Your task to perform on an android device: remove spam from my inbox in the gmail app Image 0: 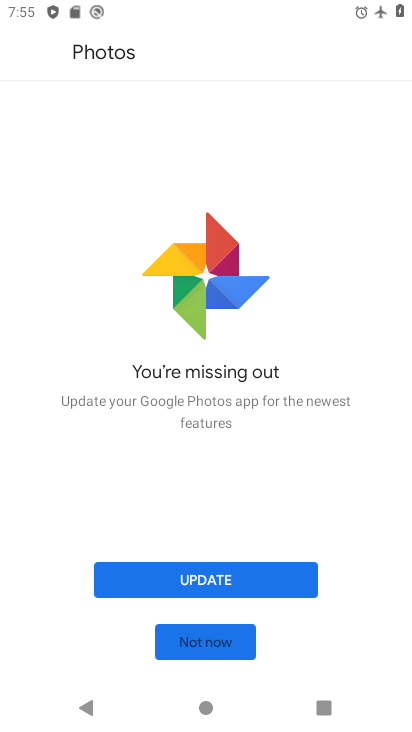
Step 0: press home button
Your task to perform on an android device: remove spam from my inbox in the gmail app Image 1: 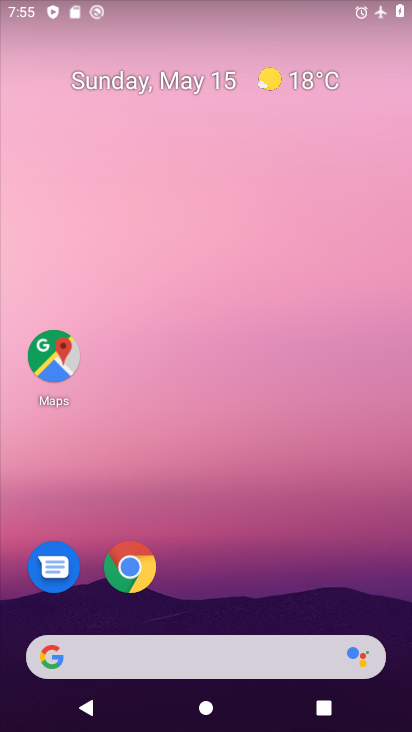
Step 1: drag from (276, 707) to (211, 30)
Your task to perform on an android device: remove spam from my inbox in the gmail app Image 2: 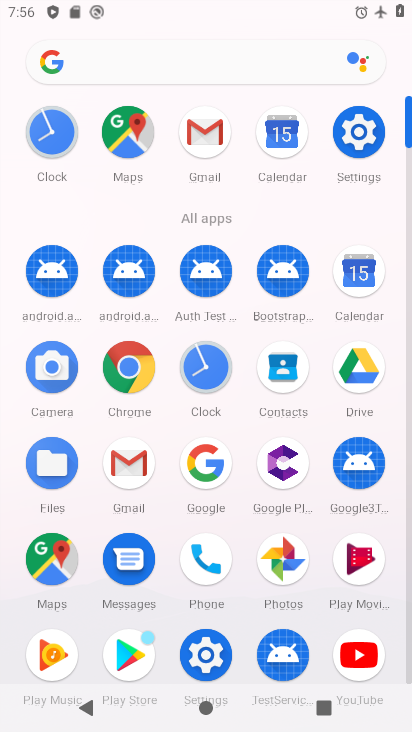
Step 2: click (213, 144)
Your task to perform on an android device: remove spam from my inbox in the gmail app Image 3: 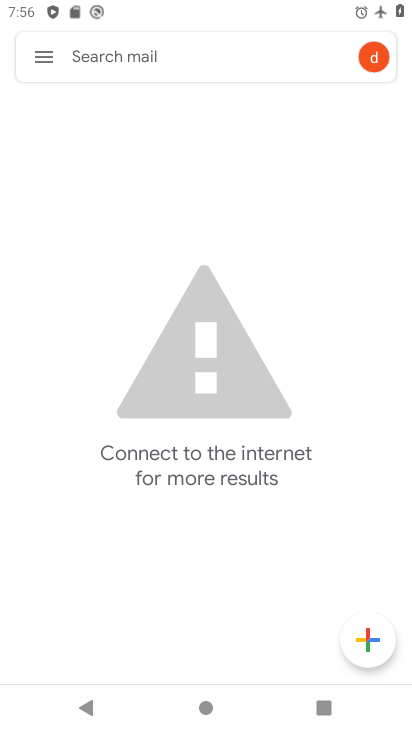
Step 3: click (41, 59)
Your task to perform on an android device: remove spam from my inbox in the gmail app Image 4: 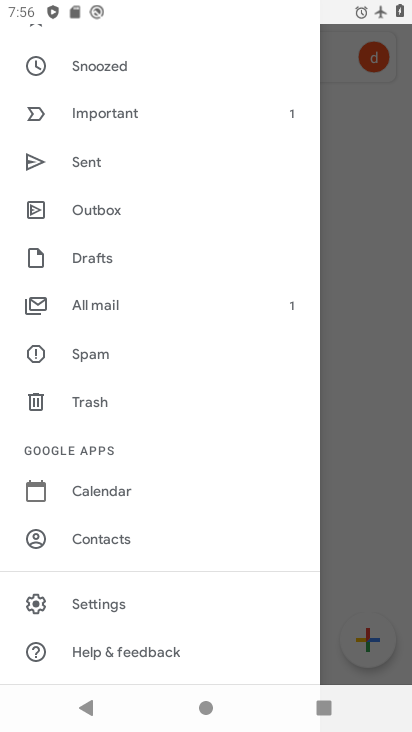
Step 4: click (134, 350)
Your task to perform on an android device: remove spam from my inbox in the gmail app Image 5: 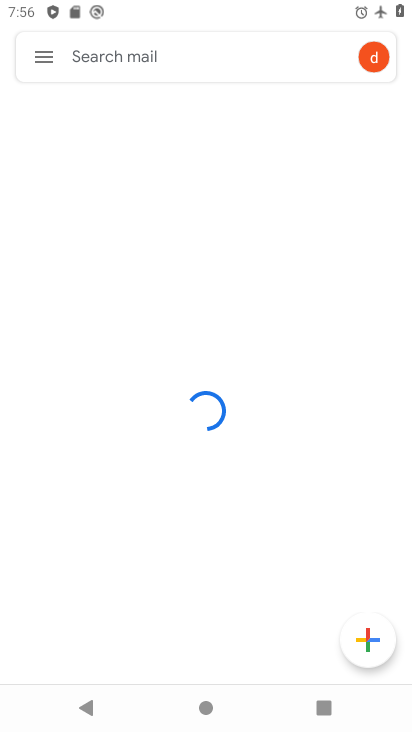
Step 5: task complete